Your task to perform on an android device: move a message to another label in the gmail app Image 0: 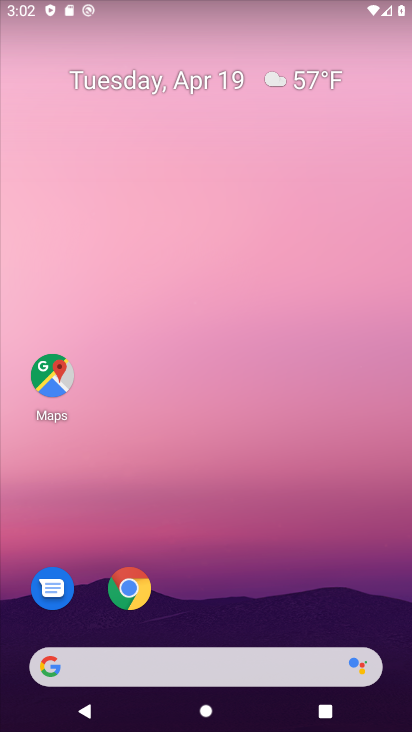
Step 0: drag from (174, 624) to (256, 131)
Your task to perform on an android device: move a message to another label in the gmail app Image 1: 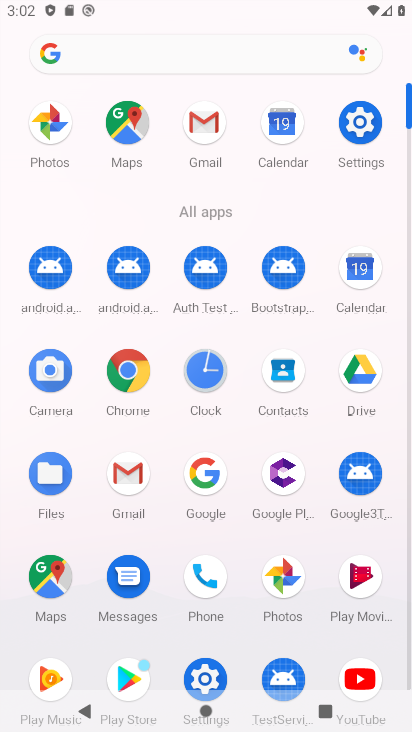
Step 1: click (131, 478)
Your task to perform on an android device: move a message to another label in the gmail app Image 2: 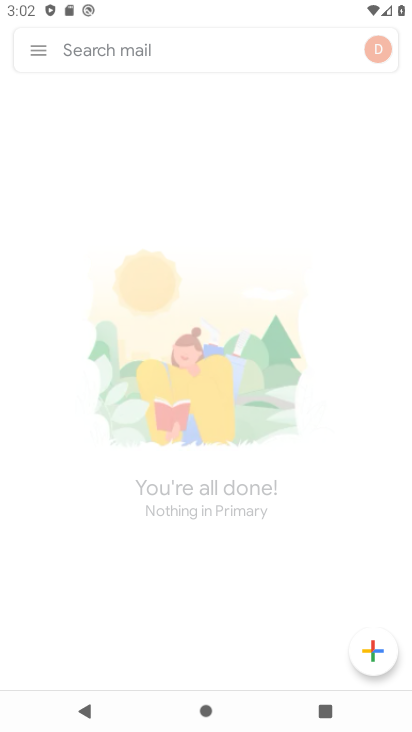
Step 2: click (51, 62)
Your task to perform on an android device: move a message to another label in the gmail app Image 3: 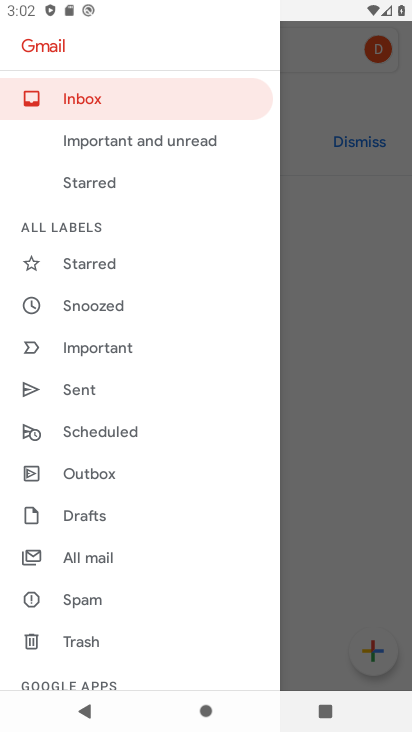
Step 3: drag from (128, 574) to (167, 446)
Your task to perform on an android device: move a message to another label in the gmail app Image 4: 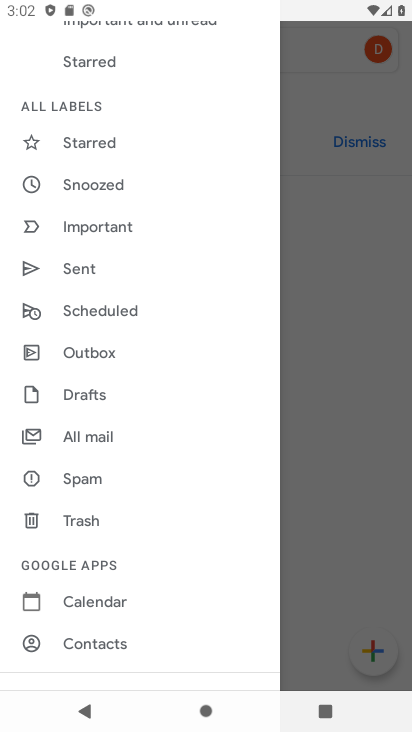
Step 4: click (117, 439)
Your task to perform on an android device: move a message to another label in the gmail app Image 5: 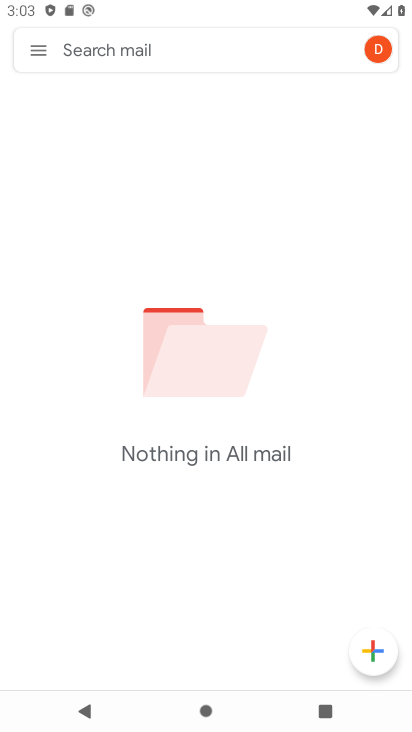
Step 5: task complete